Your task to perform on an android device: Open Reddit.com Image 0: 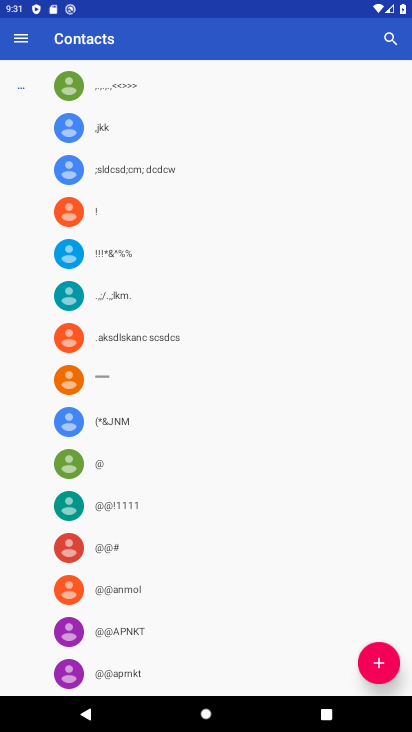
Step 0: press home button
Your task to perform on an android device: Open Reddit.com Image 1: 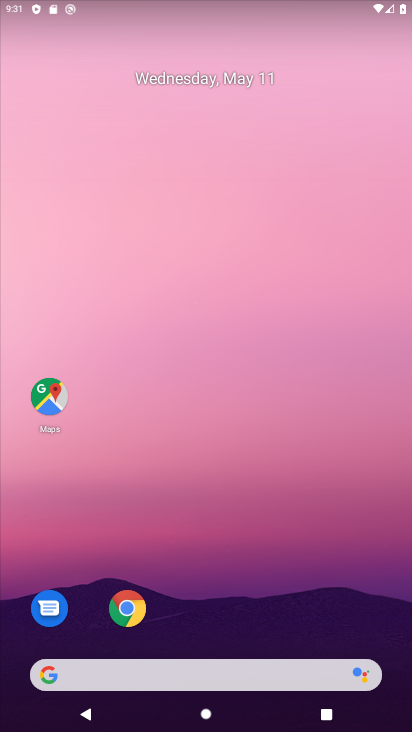
Step 1: click (130, 616)
Your task to perform on an android device: Open Reddit.com Image 2: 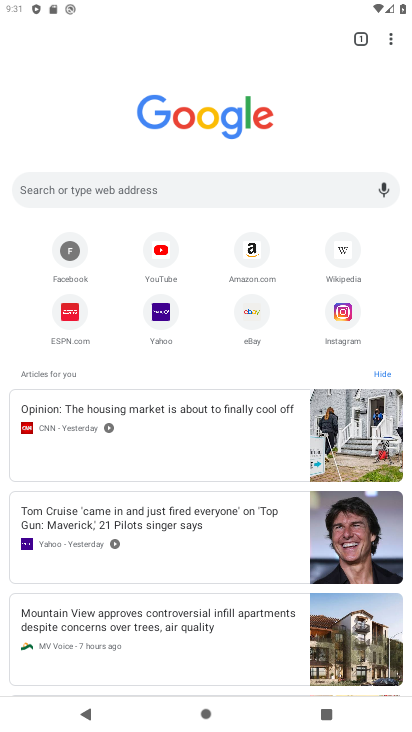
Step 2: click (181, 192)
Your task to perform on an android device: Open Reddit.com Image 3: 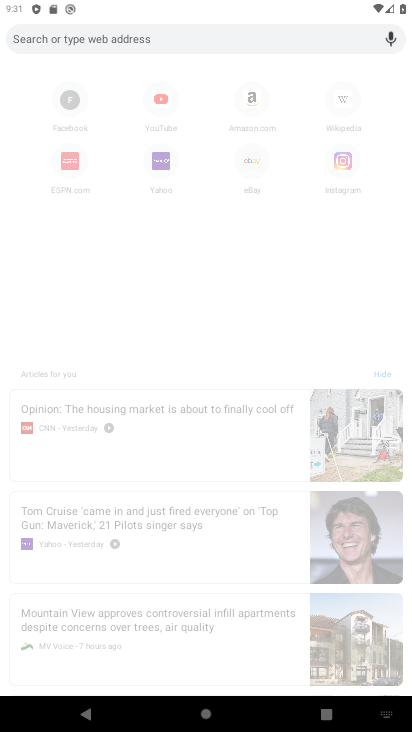
Step 3: click (180, 44)
Your task to perform on an android device: Open Reddit.com Image 4: 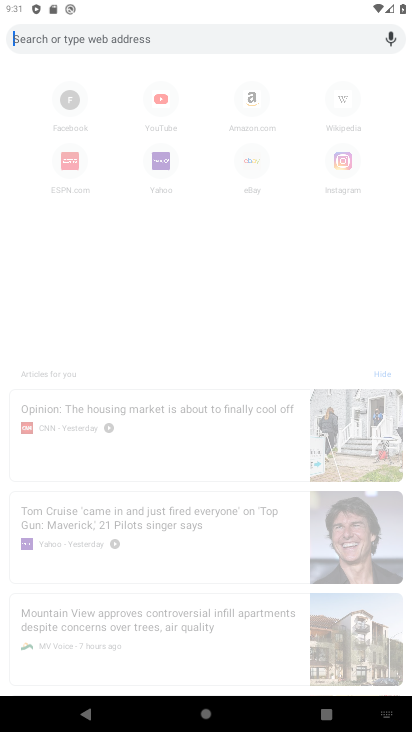
Step 4: type "reddit.com"
Your task to perform on an android device: Open Reddit.com Image 5: 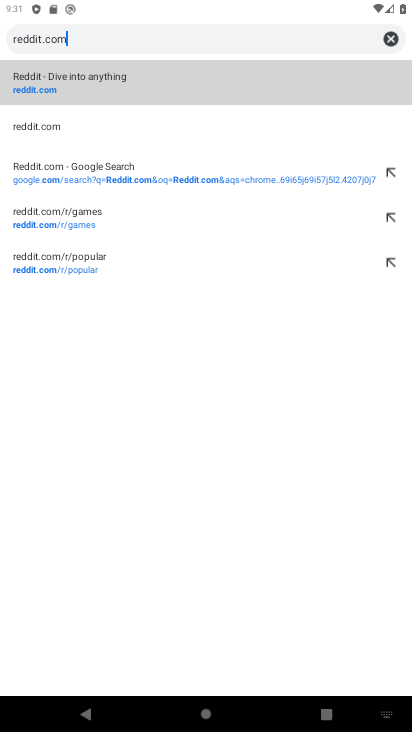
Step 5: click (44, 93)
Your task to perform on an android device: Open Reddit.com Image 6: 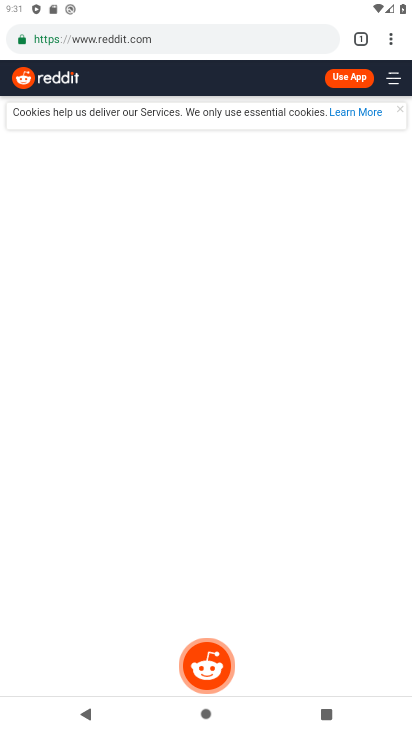
Step 6: task complete